Your task to perform on an android device: turn notification dots off Image 0: 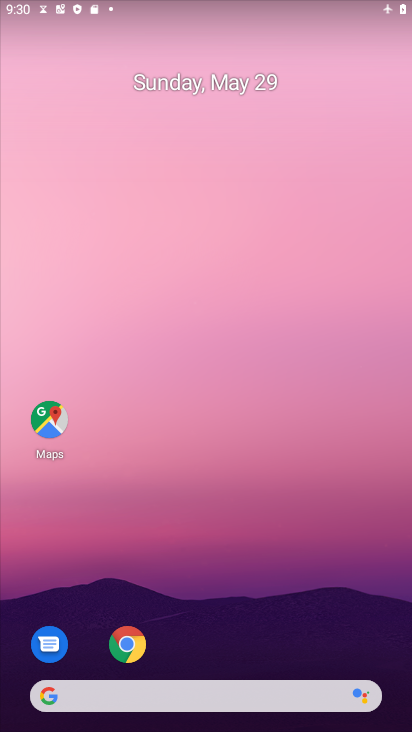
Step 0: drag from (259, 633) to (264, 209)
Your task to perform on an android device: turn notification dots off Image 1: 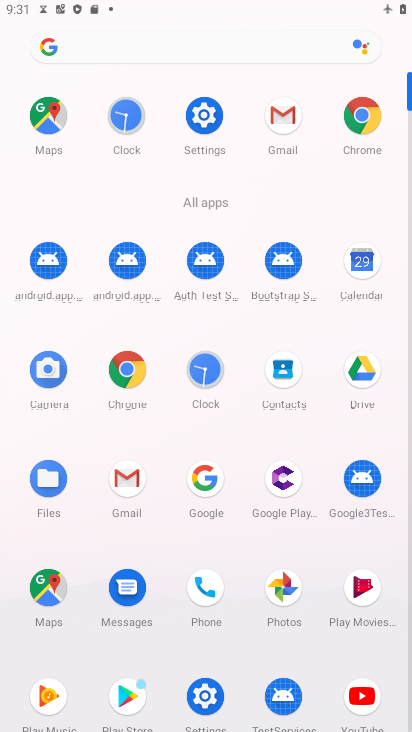
Step 1: click (192, 112)
Your task to perform on an android device: turn notification dots off Image 2: 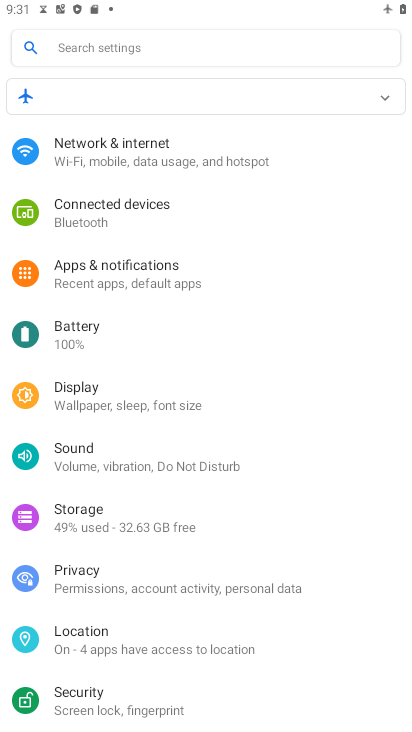
Step 2: click (146, 36)
Your task to perform on an android device: turn notification dots off Image 3: 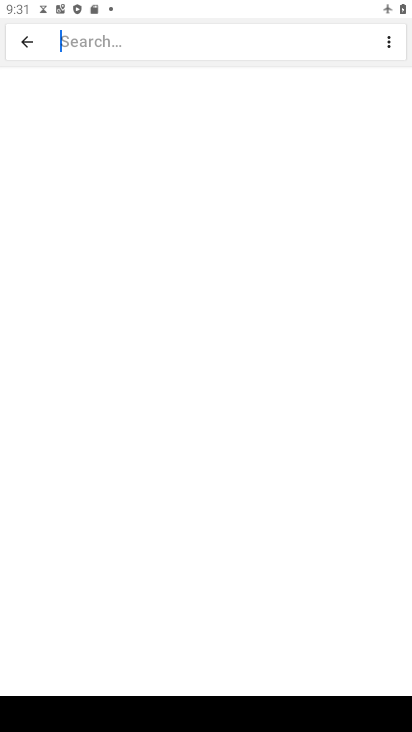
Step 3: type "notification dots "
Your task to perform on an android device: turn notification dots off Image 4: 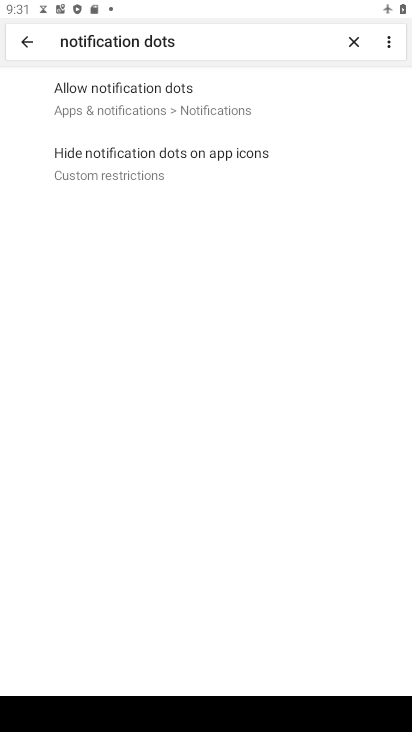
Step 4: click (222, 95)
Your task to perform on an android device: turn notification dots off Image 5: 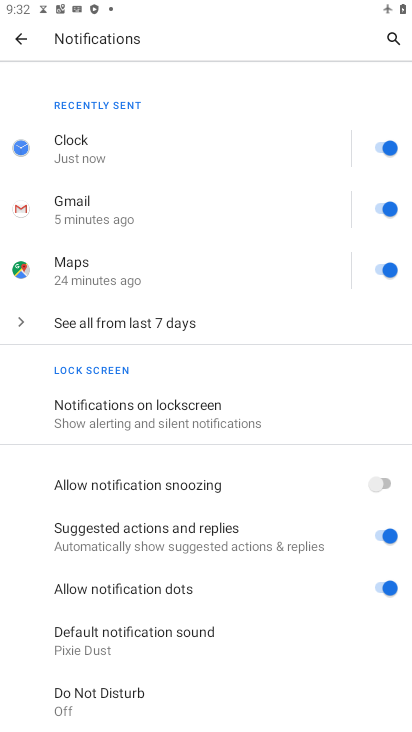
Step 5: task complete